Your task to perform on an android device: change the clock style Image 0: 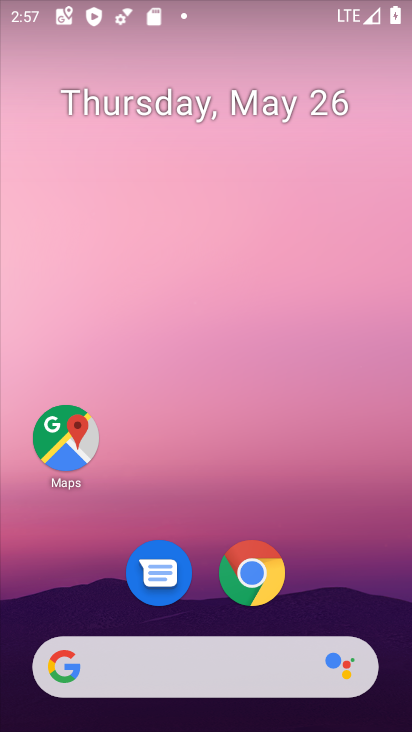
Step 0: drag from (199, 699) to (213, 139)
Your task to perform on an android device: change the clock style Image 1: 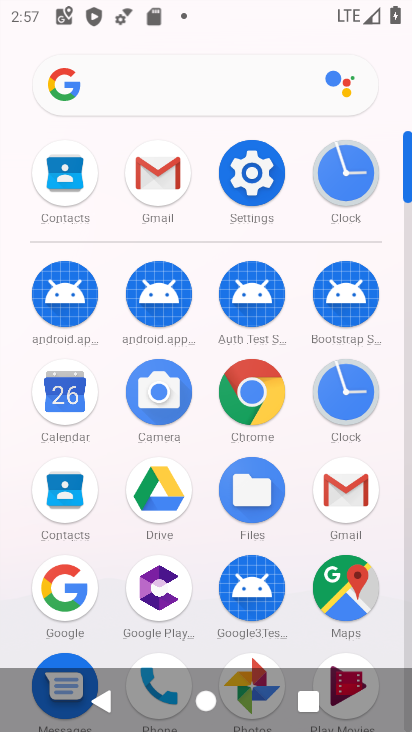
Step 1: click (344, 428)
Your task to perform on an android device: change the clock style Image 2: 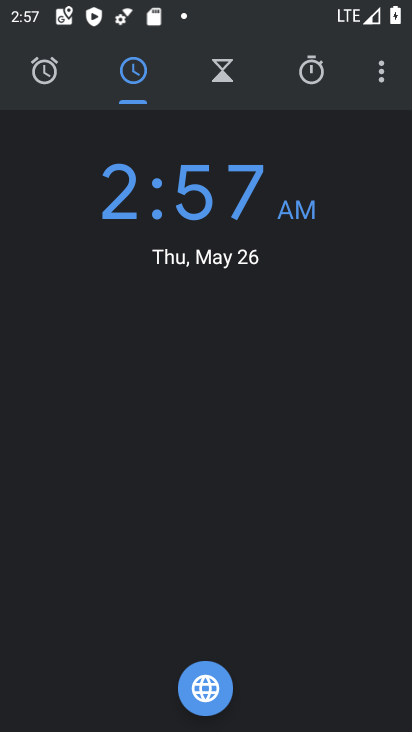
Step 2: click (376, 67)
Your task to perform on an android device: change the clock style Image 3: 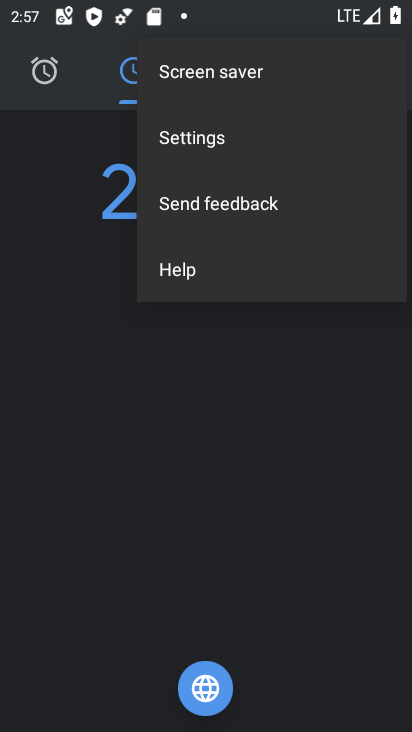
Step 3: click (224, 147)
Your task to perform on an android device: change the clock style Image 4: 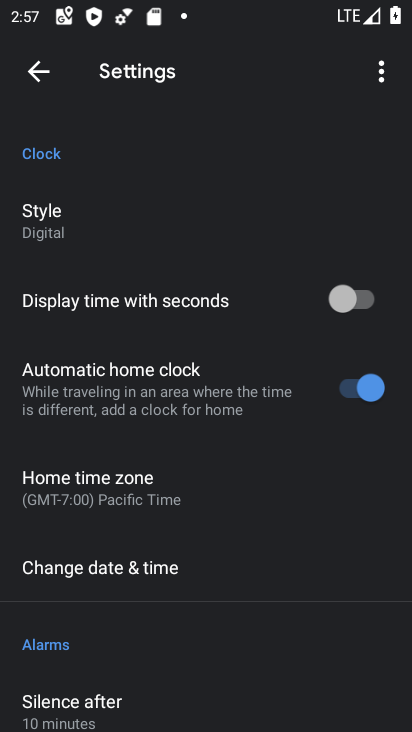
Step 4: click (98, 231)
Your task to perform on an android device: change the clock style Image 5: 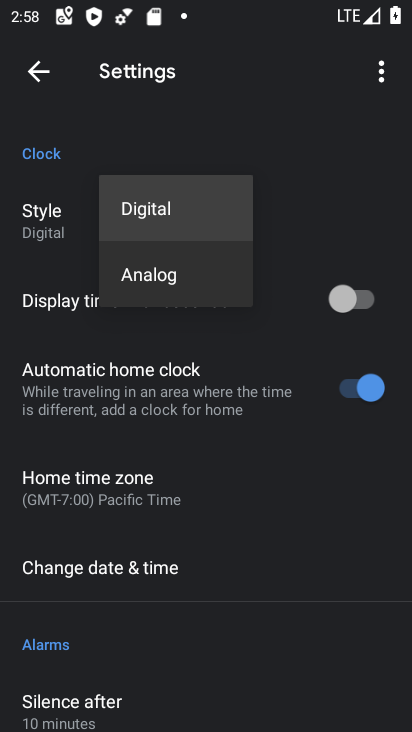
Step 5: click (134, 267)
Your task to perform on an android device: change the clock style Image 6: 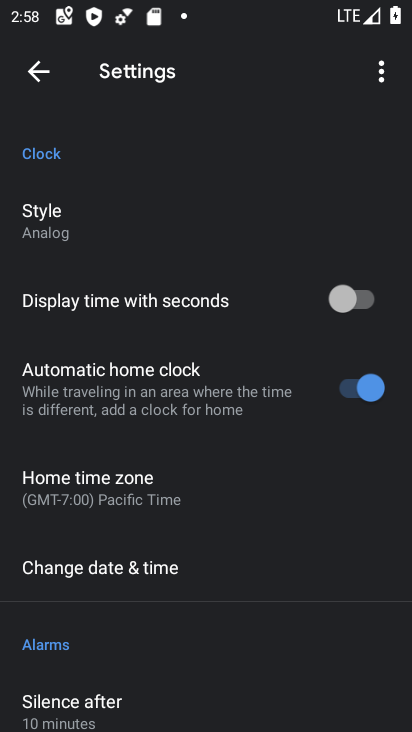
Step 6: task complete